Your task to perform on an android device: Open the calendar and show me this week's events? Image 0: 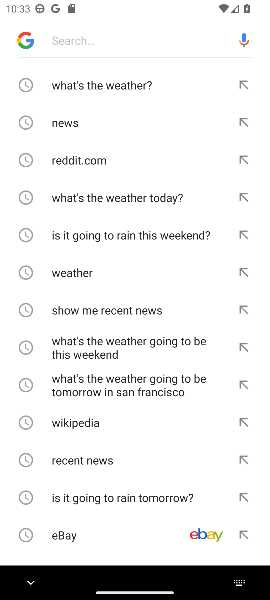
Step 0: press home button
Your task to perform on an android device: Open the calendar and show me this week's events? Image 1: 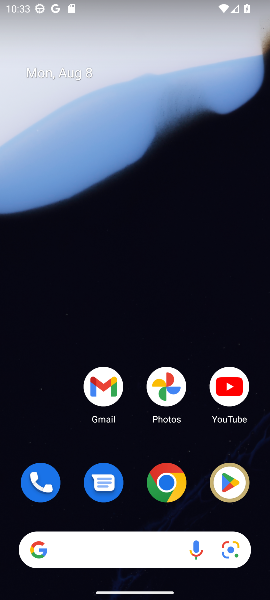
Step 1: drag from (136, 451) to (165, 23)
Your task to perform on an android device: Open the calendar and show me this week's events? Image 2: 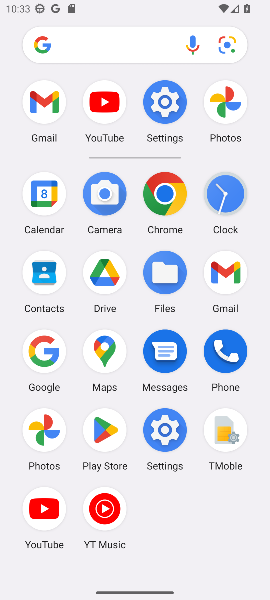
Step 2: click (34, 196)
Your task to perform on an android device: Open the calendar and show me this week's events? Image 3: 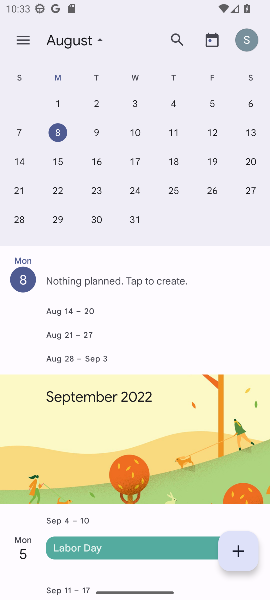
Step 3: click (97, 130)
Your task to perform on an android device: Open the calendar and show me this week's events? Image 4: 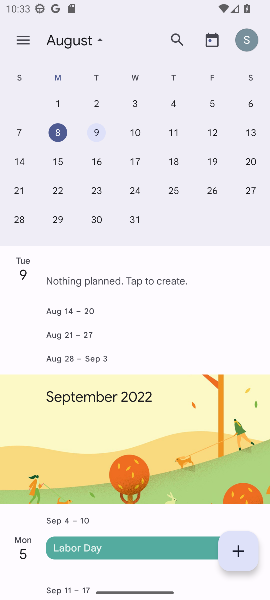
Step 4: click (120, 130)
Your task to perform on an android device: Open the calendar and show me this week's events? Image 5: 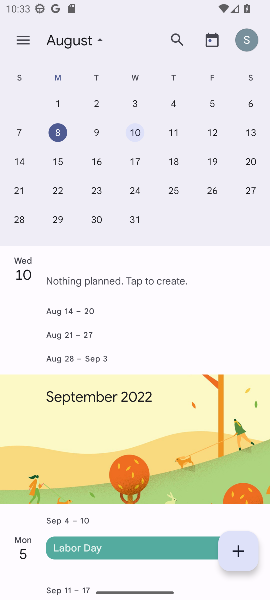
Step 5: click (168, 130)
Your task to perform on an android device: Open the calendar and show me this week's events? Image 6: 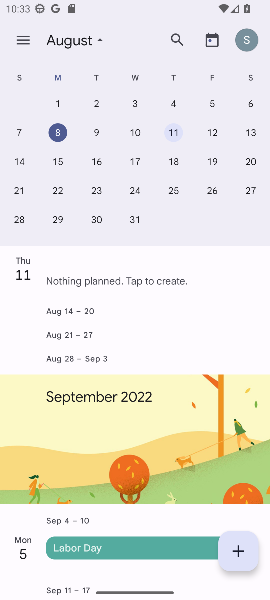
Step 6: click (202, 133)
Your task to perform on an android device: Open the calendar and show me this week's events? Image 7: 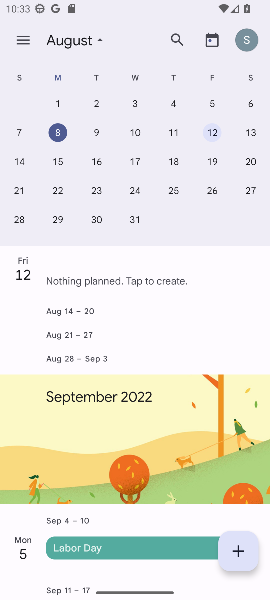
Step 7: click (252, 133)
Your task to perform on an android device: Open the calendar and show me this week's events? Image 8: 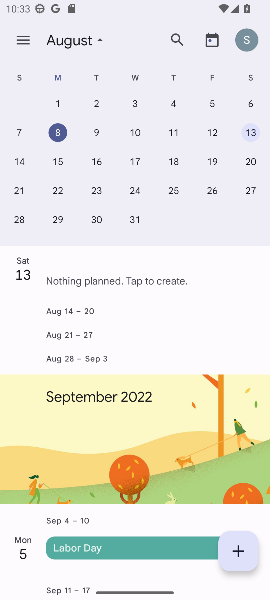
Step 8: task complete